Your task to perform on an android device: turn smart compose on in the gmail app Image 0: 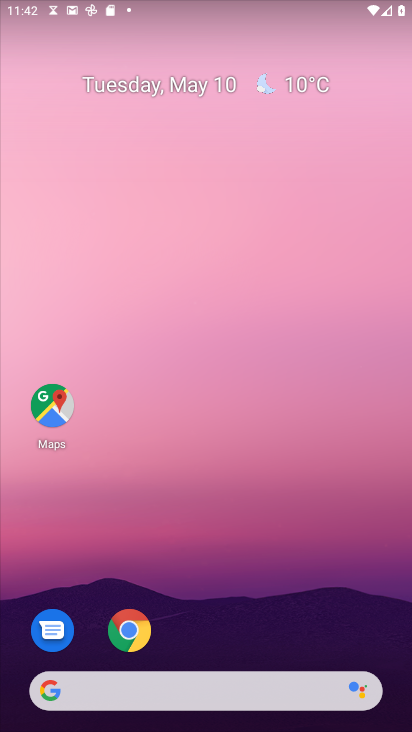
Step 0: drag from (224, 640) to (377, 12)
Your task to perform on an android device: turn smart compose on in the gmail app Image 1: 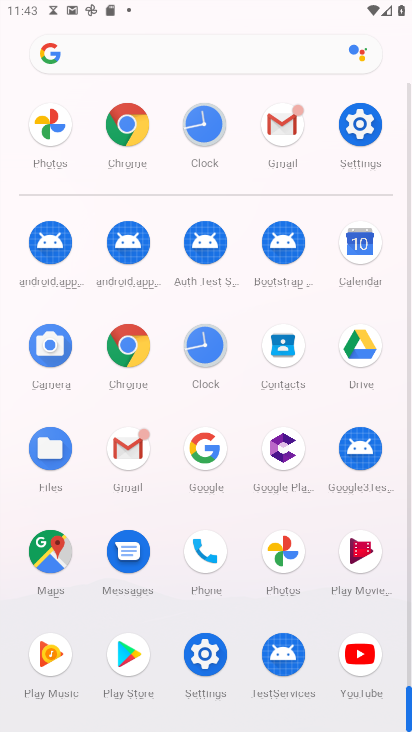
Step 1: click (287, 125)
Your task to perform on an android device: turn smart compose on in the gmail app Image 2: 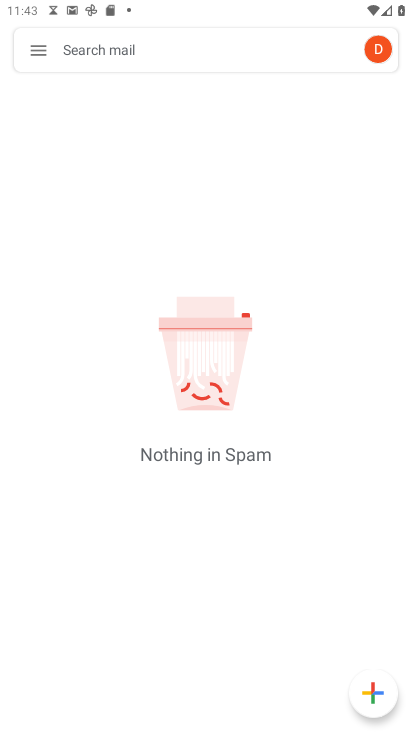
Step 2: click (38, 52)
Your task to perform on an android device: turn smart compose on in the gmail app Image 3: 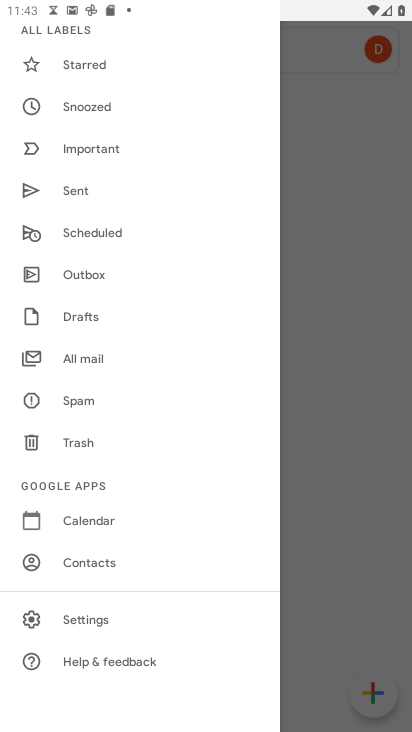
Step 3: click (92, 621)
Your task to perform on an android device: turn smart compose on in the gmail app Image 4: 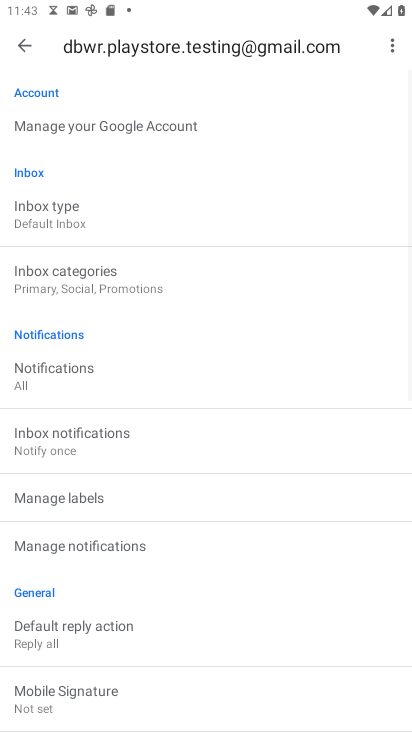
Step 4: task complete